Your task to perform on an android device: change your default location settings in chrome Image 0: 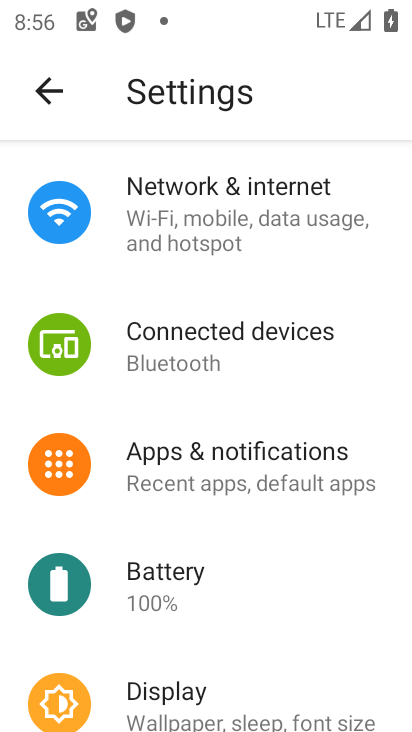
Step 0: press home button
Your task to perform on an android device: change your default location settings in chrome Image 1: 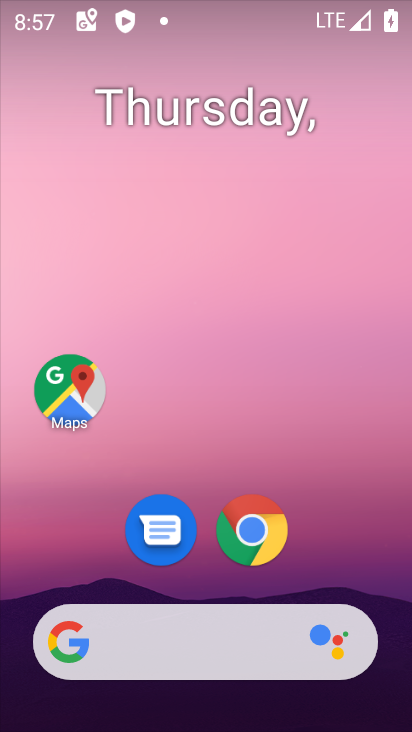
Step 1: drag from (254, 637) to (310, 270)
Your task to perform on an android device: change your default location settings in chrome Image 2: 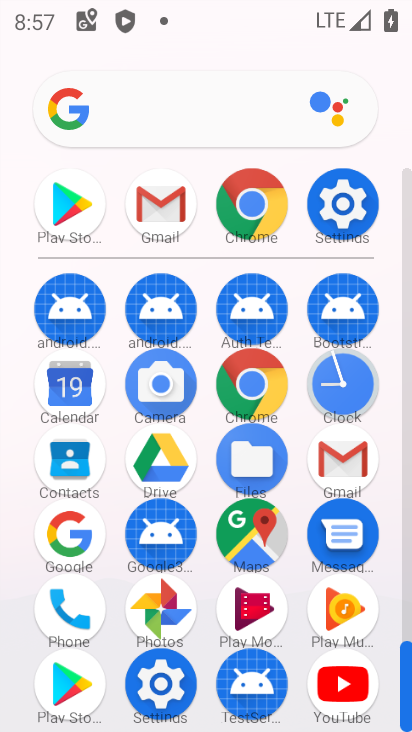
Step 2: click (272, 227)
Your task to perform on an android device: change your default location settings in chrome Image 3: 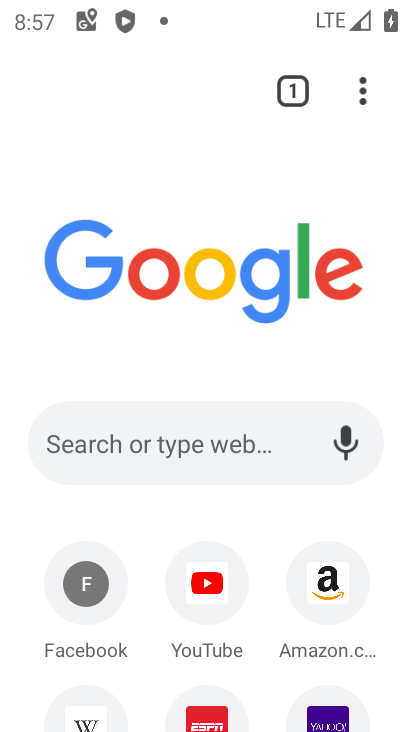
Step 3: click (376, 110)
Your task to perform on an android device: change your default location settings in chrome Image 4: 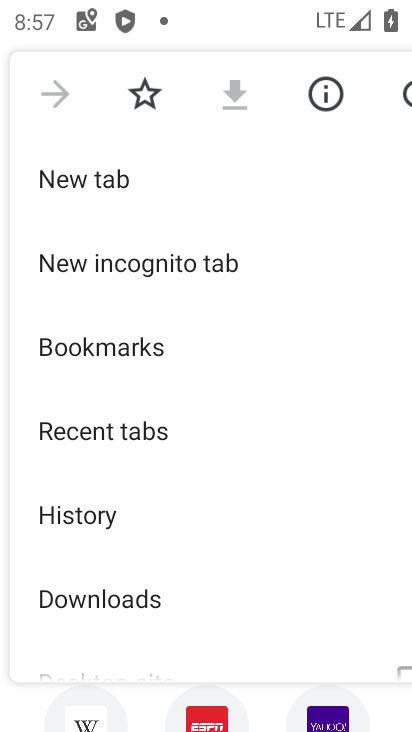
Step 4: drag from (261, 601) to (306, 298)
Your task to perform on an android device: change your default location settings in chrome Image 5: 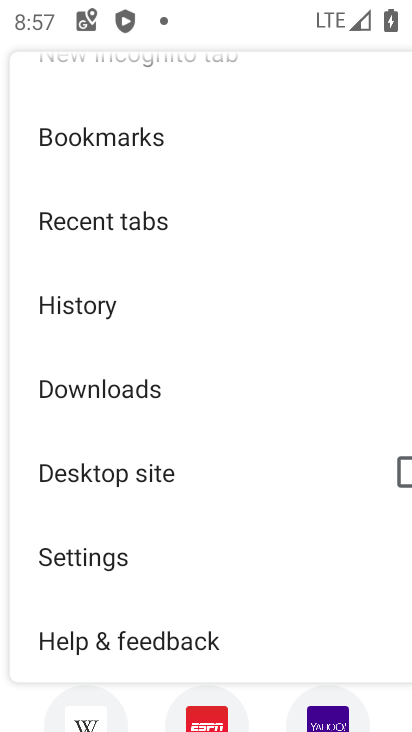
Step 5: click (209, 566)
Your task to perform on an android device: change your default location settings in chrome Image 6: 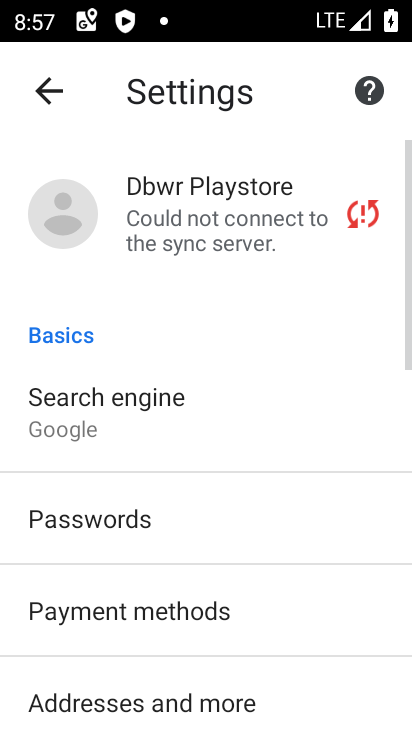
Step 6: drag from (210, 566) to (224, 451)
Your task to perform on an android device: change your default location settings in chrome Image 7: 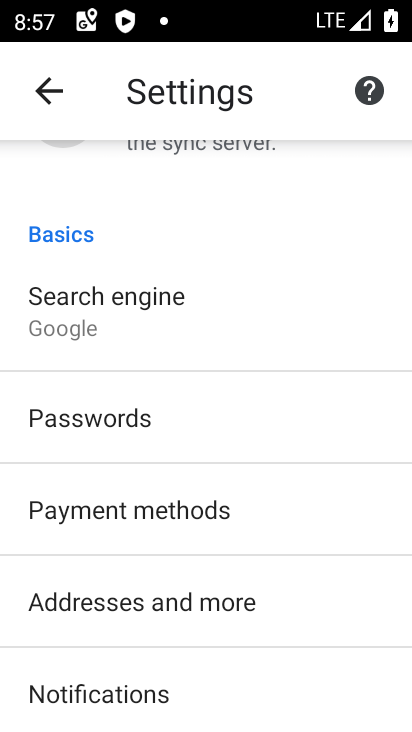
Step 7: drag from (232, 576) to (235, 370)
Your task to perform on an android device: change your default location settings in chrome Image 8: 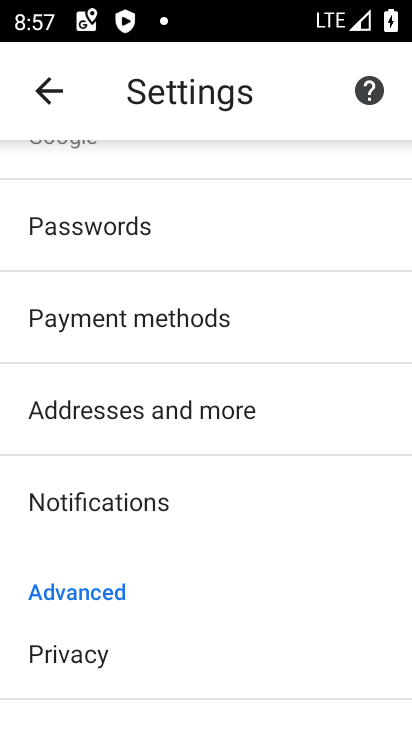
Step 8: drag from (230, 511) to (234, 420)
Your task to perform on an android device: change your default location settings in chrome Image 9: 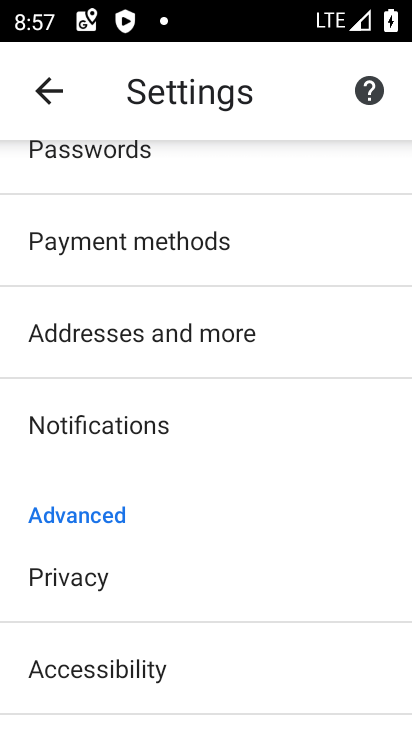
Step 9: drag from (189, 656) to (222, 334)
Your task to perform on an android device: change your default location settings in chrome Image 10: 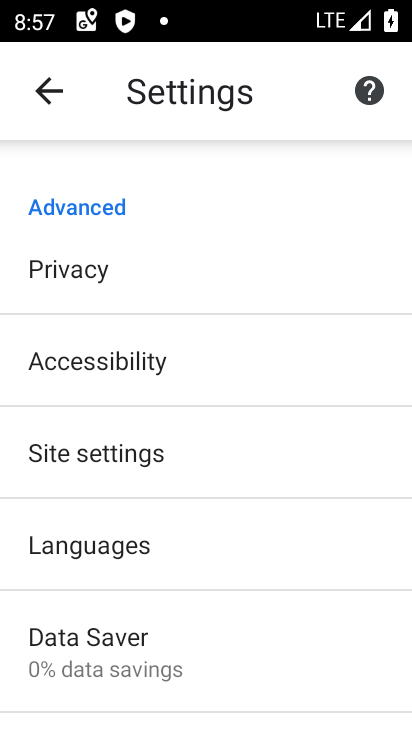
Step 10: click (167, 460)
Your task to perform on an android device: change your default location settings in chrome Image 11: 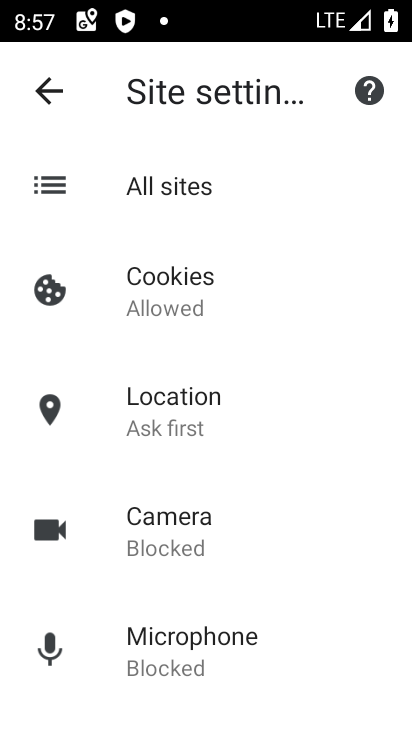
Step 11: click (237, 401)
Your task to perform on an android device: change your default location settings in chrome Image 12: 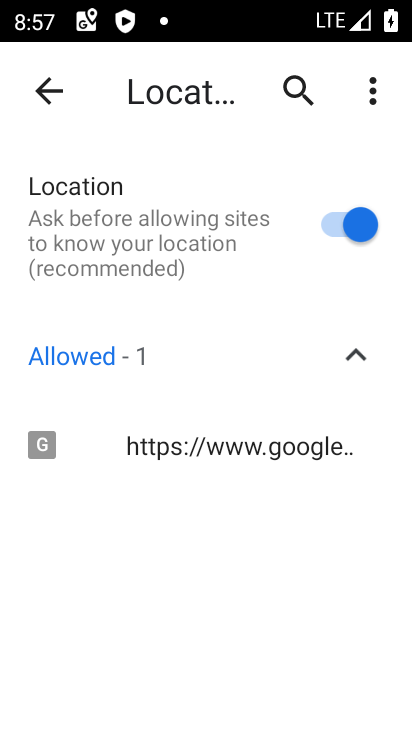
Step 12: click (338, 217)
Your task to perform on an android device: change your default location settings in chrome Image 13: 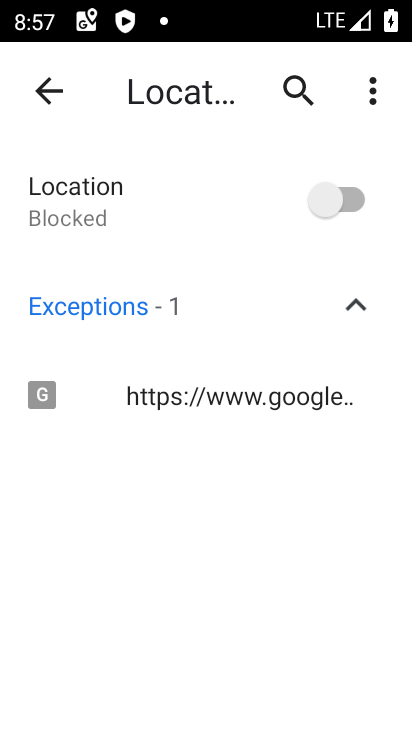
Step 13: task complete